Your task to perform on an android device: What is the recent news? Image 0: 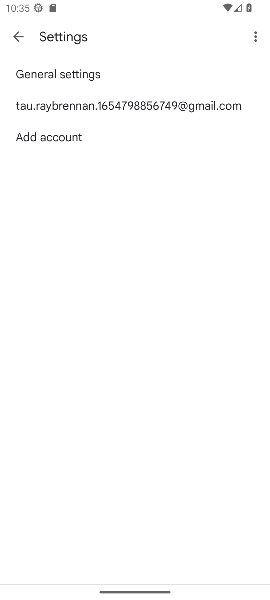
Step 0: press home button
Your task to perform on an android device: What is the recent news? Image 1: 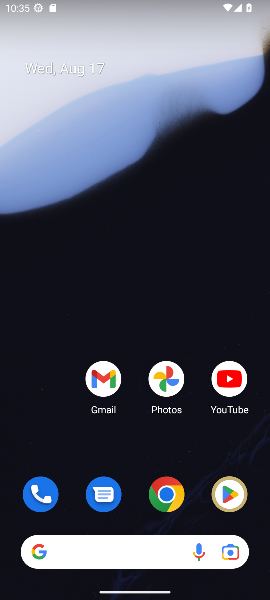
Step 1: click (128, 553)
Your task to perform on an android device: What is the recent news? Image 2: 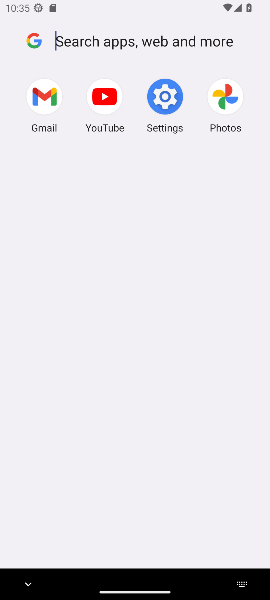
Step 2: click (37, 47)
Your task to perform on an android device: What is the recent news? Image 3: 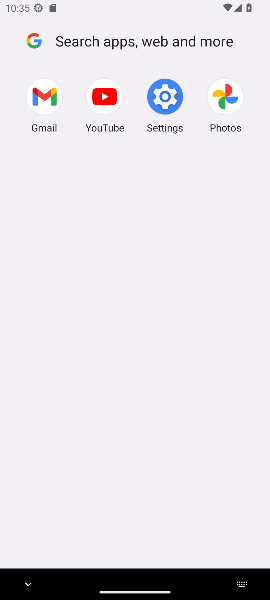
Step 3: click (87, 45)
Your task to perform on an android device: What is the recent news? Image 4: 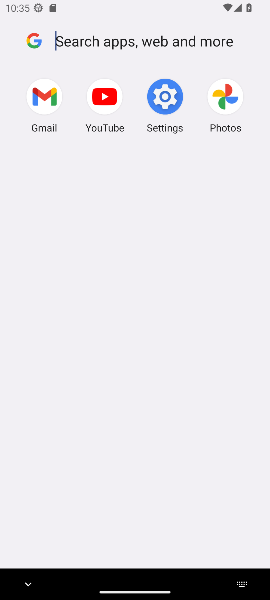
Step 4: type "google"
Your task to perform on an android device: What is the recent news? Image 5: 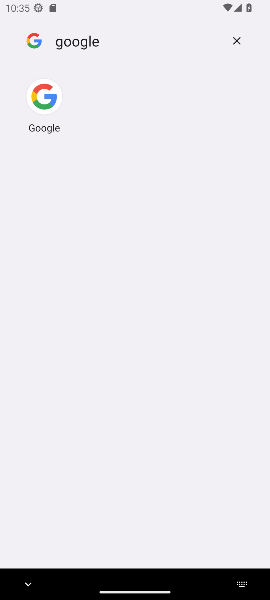
Step 5: click (44, 99)
Your task to perform on an android device: What is the recent news? Image 6: 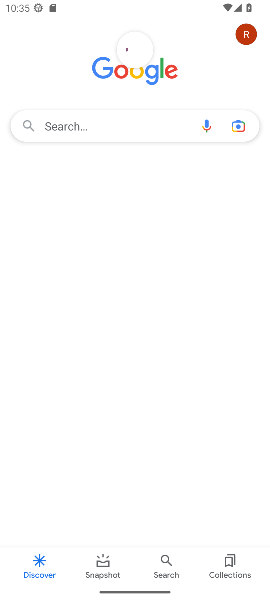
Step 6: click (160, 116)
Your task to perform on an android device: What is the recent news? Image 7: 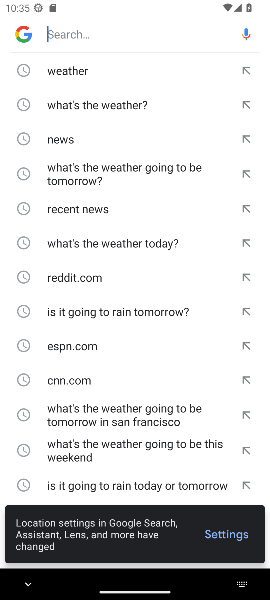
Step 7: type "recent news"
Your task to perform on an android device: What is the recent news? Image 8: 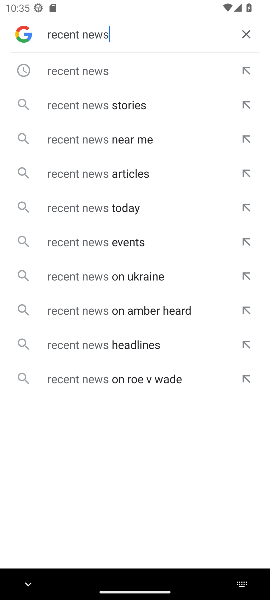
Step 8: click (101, 67)
Your task to perform on an android device: What is the recent news? Image 9: 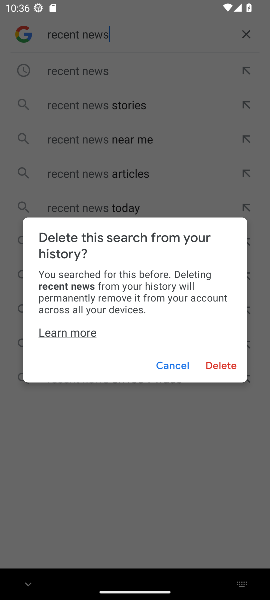
Step 9: click (173, 364)
Your task to perform on an android device: What is the recent news? Image 10: 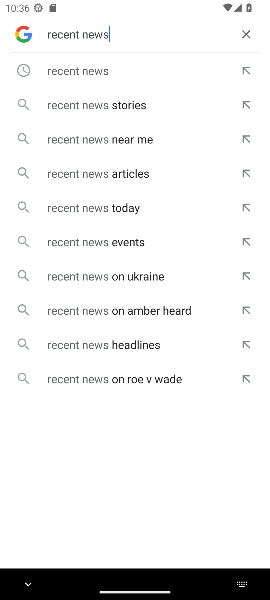
Step 10: click (58, 70)
Your task to perform on an android device: What is the recent news? Image 11: 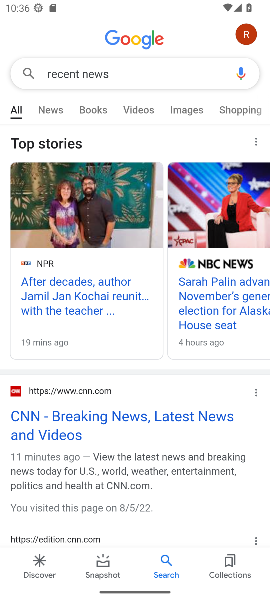
Step 11: task complete